Your task to perform on an android device: Open sound settings Image 0: 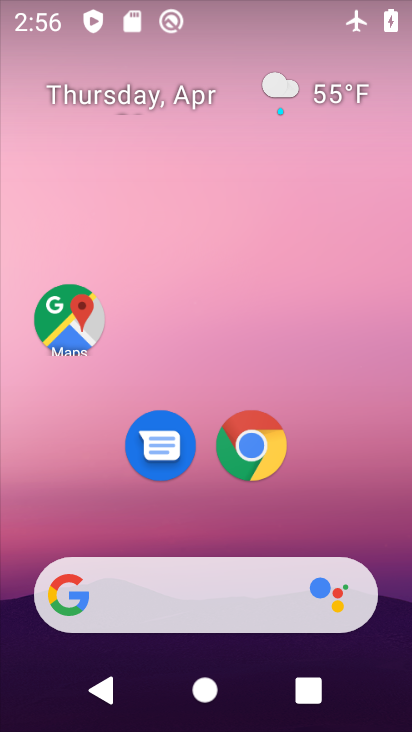
Step 0: drag from (333, 475) to (349, 11)
Your task to perform on an android device: Open sound settings Image 1: 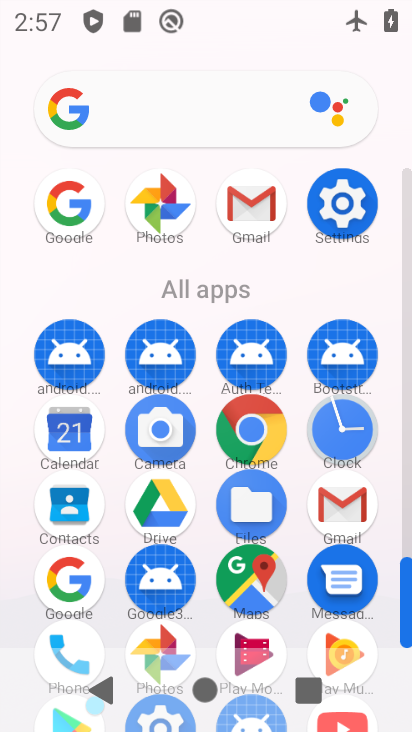
Step 1: click (341, 203)
Your task to perform on an android device: Open sound settings Image 2: 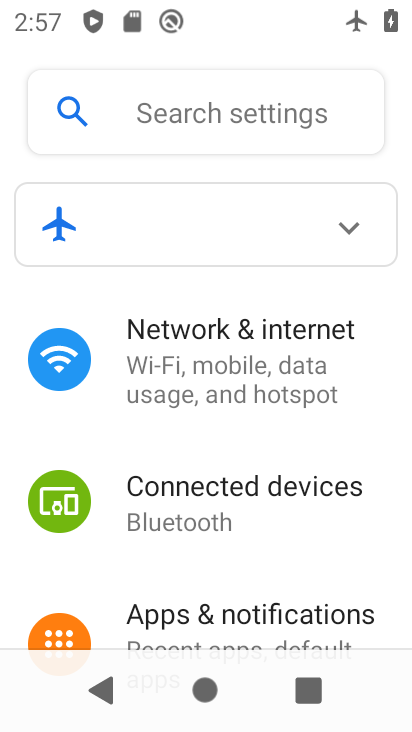
Step 2: drag from (236, 449) to (247, 295)
Your task to perform on an android device: Open sound settings Image 3: 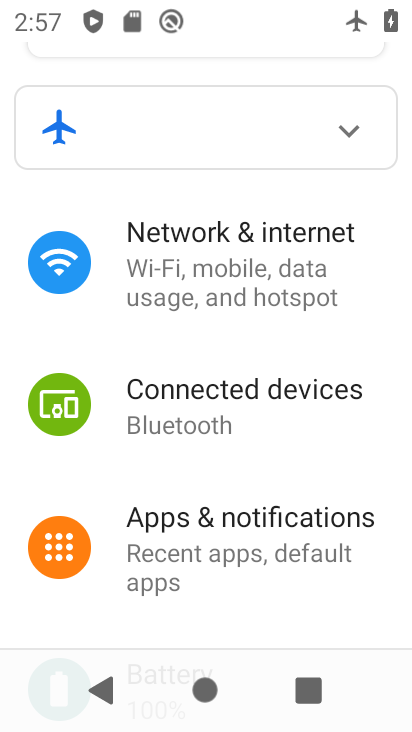
Step 3: drag from (237, 470) to (243, 291)
Your task to perform on an android device: Open sound settings Image 4: 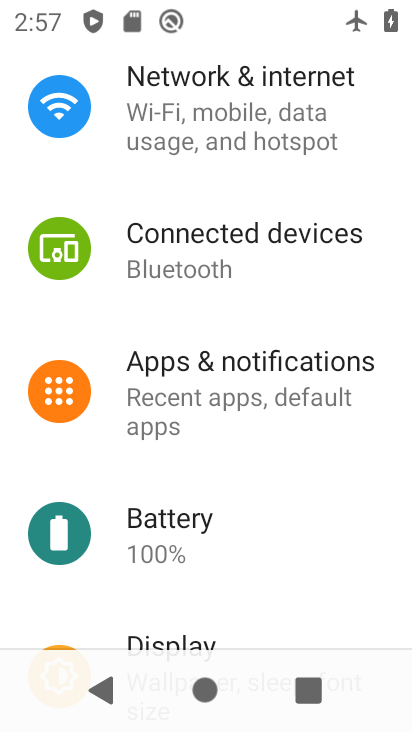
Step 4: drag from (273, 314) to (295, 148)
Your task to perform on an android device: Open sound settings Image 5: 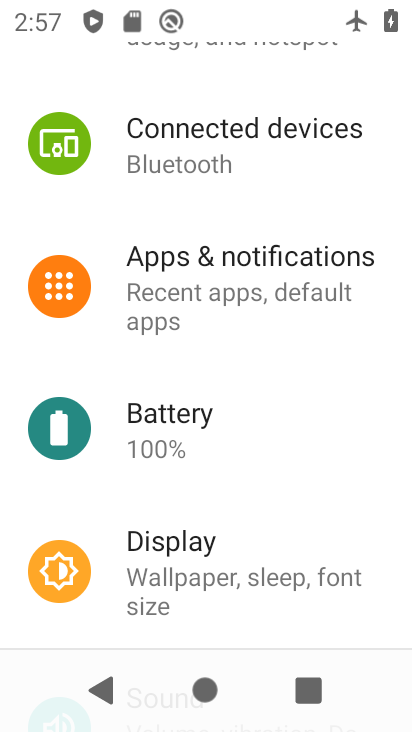
Step 5: drag from (301, 222) to (305, 168)
Your task to perform on an android device: Open sound settings Image 6: 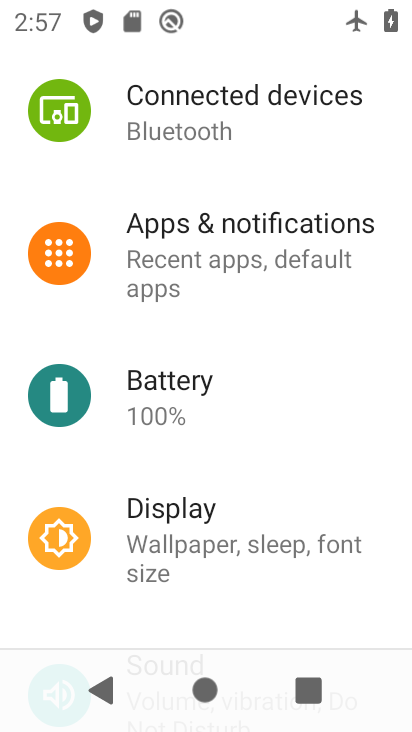
Step 6: drag from (246, 463) to (311, 226)
Your task to perform on an android device: Open sound settings Image 7: 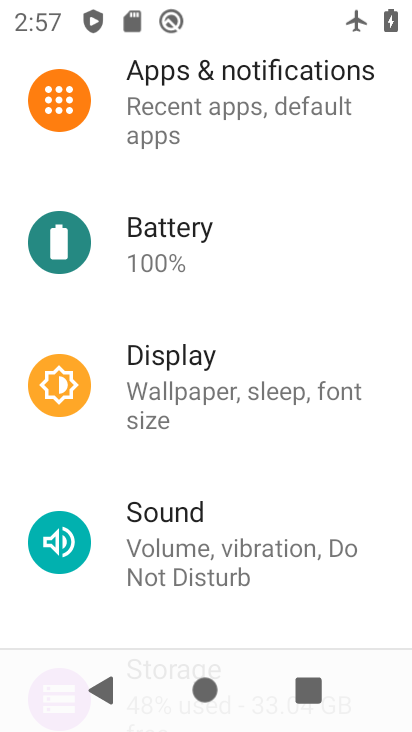
Step 7: click (181, 515)
Your task to perform on an android device: Open sound settings Image 8: 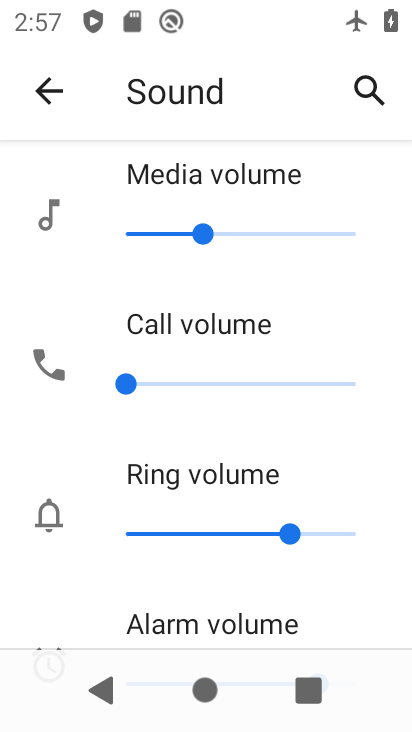
Step 8: task complete